Your task to perform on an android device: change alarm snooze length Image 0: 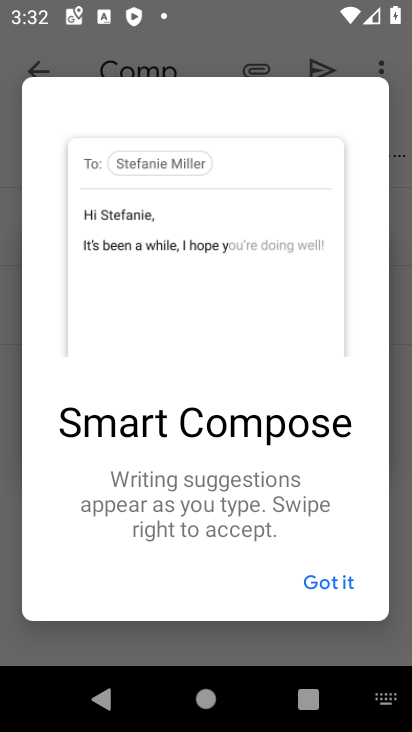
Step 0: press home button
Your task to perform on an android device: change alarm snooze length Image 1: 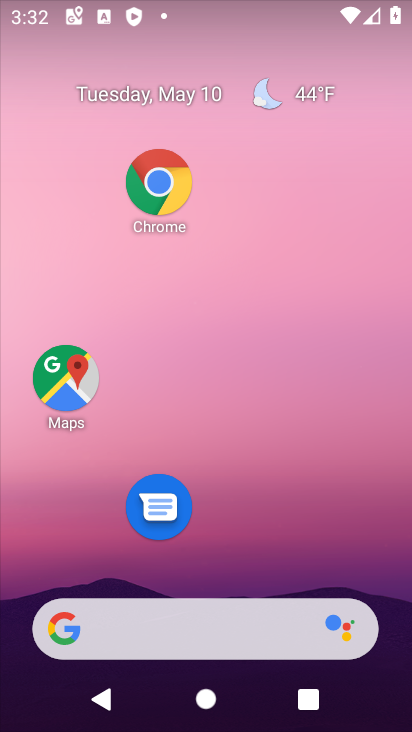
Step 1: drag from (285, 542) to (275, 140)
Your task to perform on an android device: change alarm snooze length Image 2: 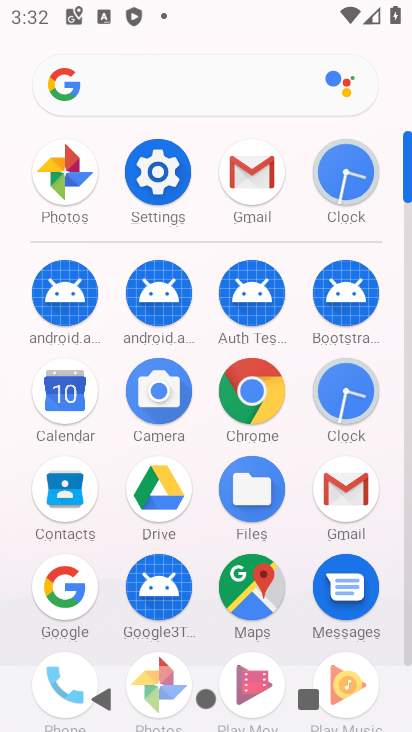
Step 2: click (150, 167)
Your task to perform on an android device: change alarm snooze length Image 3: 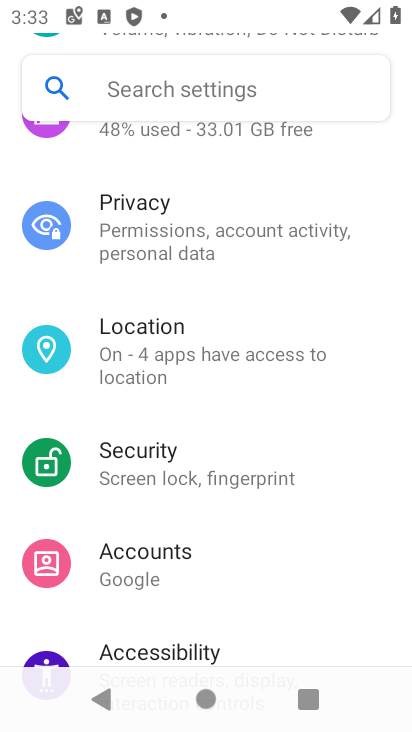
Step 3: press home button
Your task to perform on an android device: change alarm snooze length Image 4: 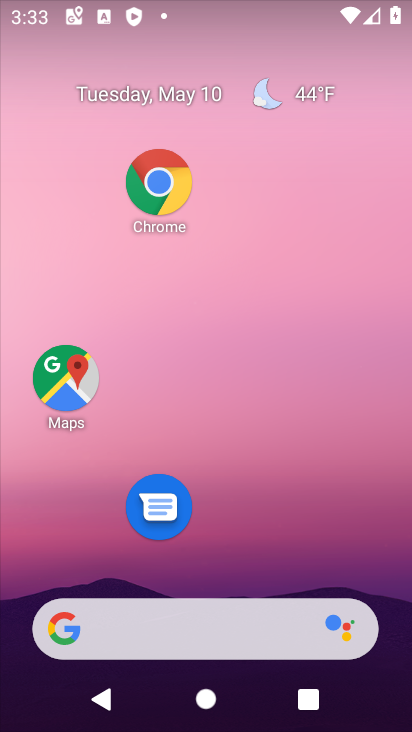
Step 4: drag from (249, 560) to (258, 32)
Your task to perform on an android device: change alarm snooze length Image 5: 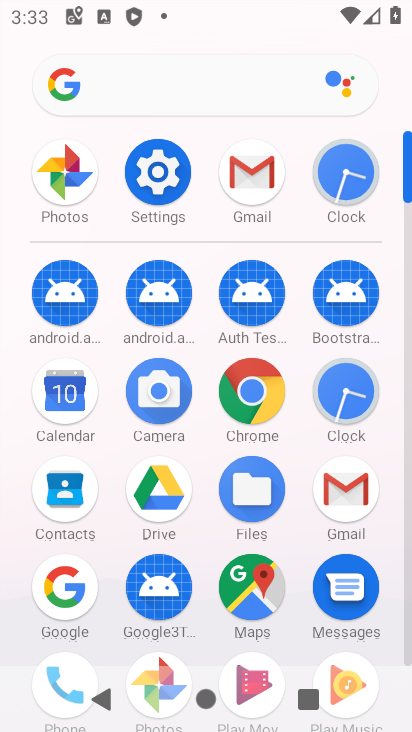
Step 5: click (327, 389)
Your task to perform on an android device: change alarm snooze length Image 6: 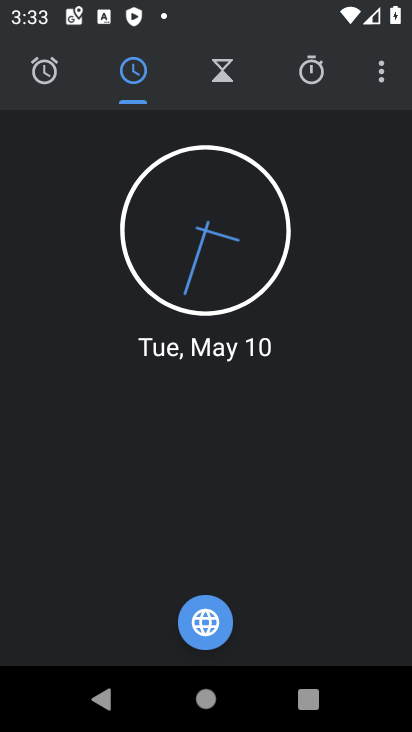
Step 6: click (372, 99)
Your task to perform on an android device: change alarm snooze length Image 7: 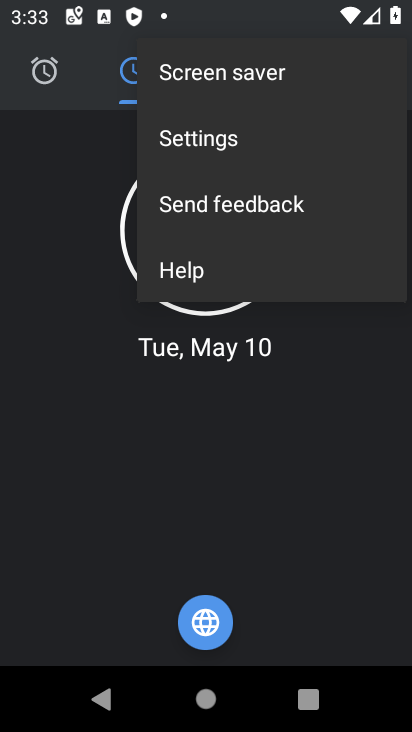
Step 7: click (238, 139)
Your task to perform on an android device: change alarm snooze length Image 8: 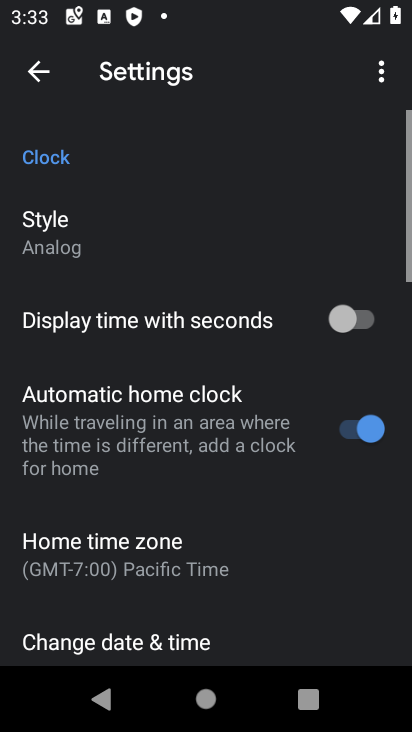
Step 8: drag from (302, 535) to (155, 13)
Your task to perform on an android device: change alarm snooze length Image 9: 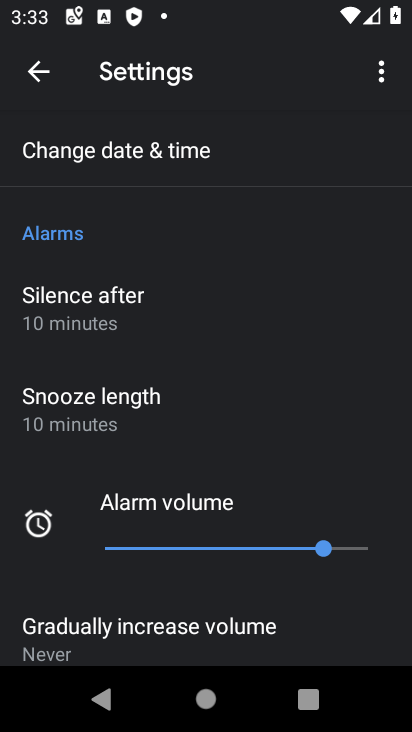
Step 9: click (203, 403)
Your task to perform on an android device: change alarm snooze length Image 10: 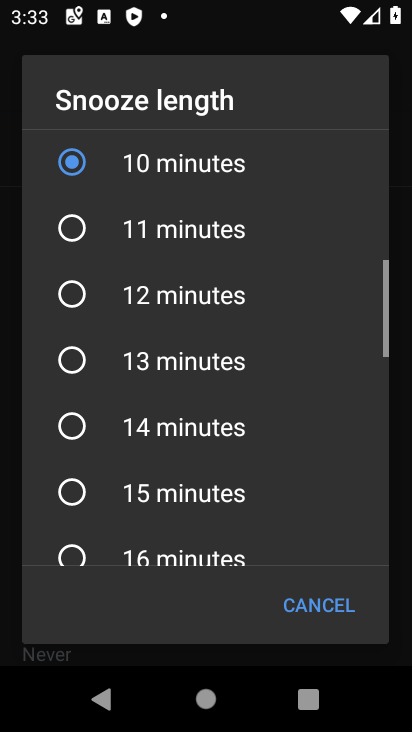
Step 10: click (224, 245)
Your task to perform on an android device: change alarm snooze length Image 11: 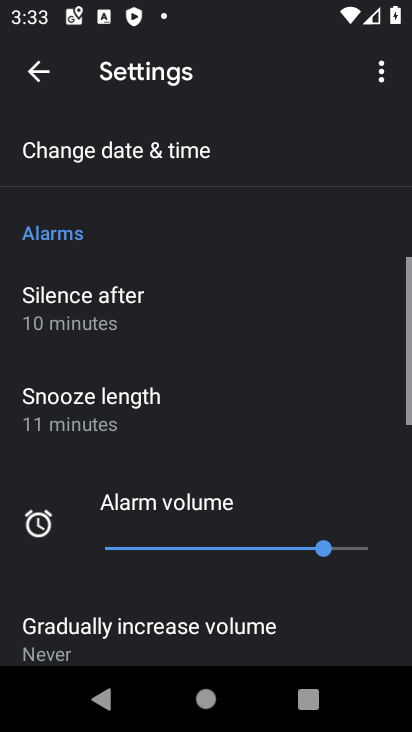
Step 11: task complete